Your task to perform on an android device: Go to wifi settings Image 0: 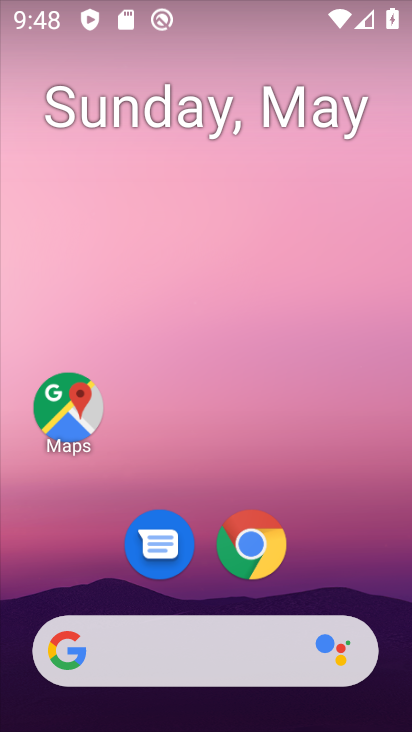
Step 0: drag from (321, 562) to (314, 177)
Your task to perform on an android device: Go to wifi settings Image 1: 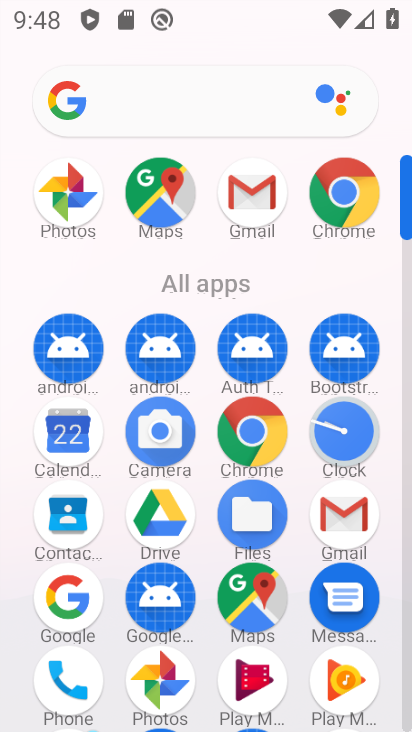
Step 1: drag from (302, 578) to (304, 366)
Your task to perform on an android device: Go to wifi settings Image 2: 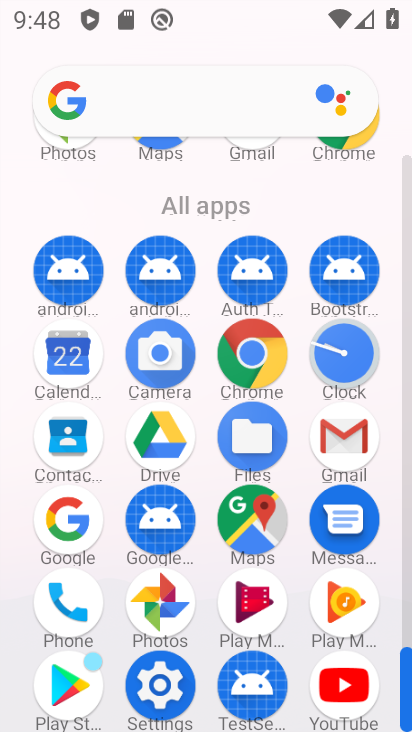
Step 2: click (148, 672)
Your task to perform on an android device: Go to wifi settings Image 3: 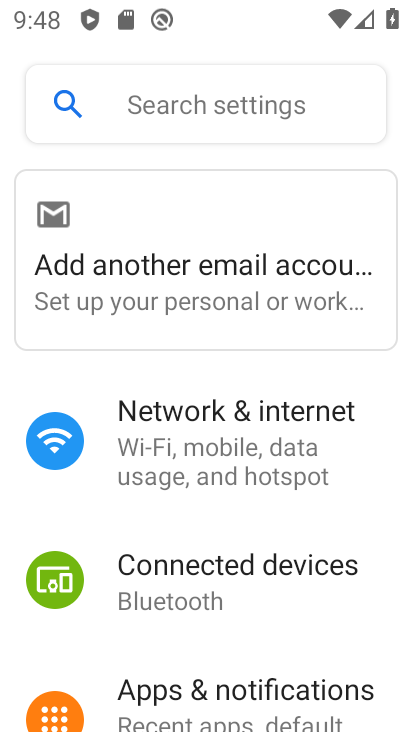
Step 3: click (230, 428)
Your task to perform on an android device: Go to wifi settings Image 4: 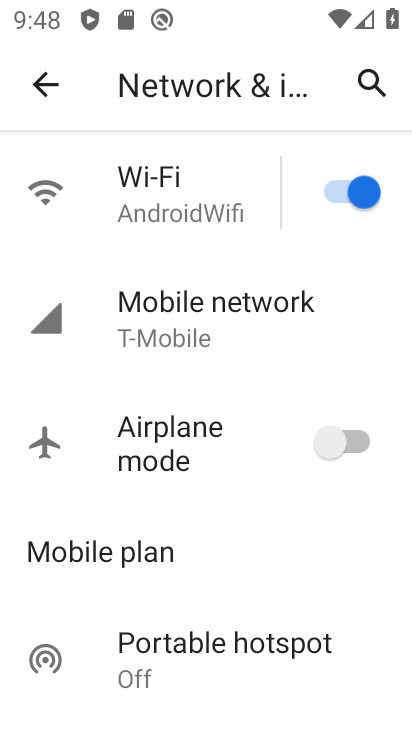
Step 4: task complete